Your task to perform on an android device: Open sound settings Image 0: 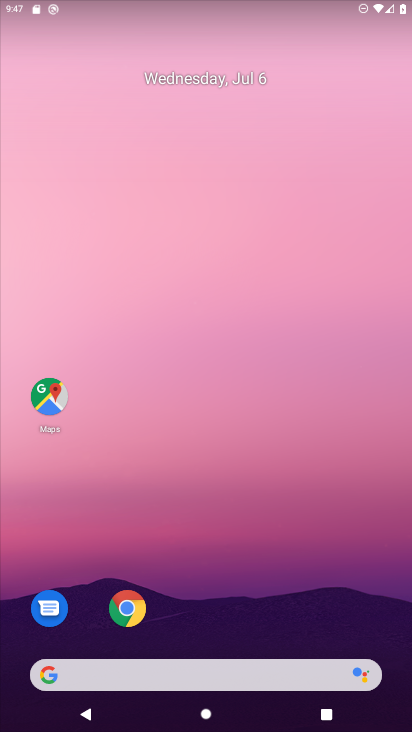
Step 0: drag from (207, 657) to (273, 248)
Your task to perform on an android device: Open sound settings Image 1: 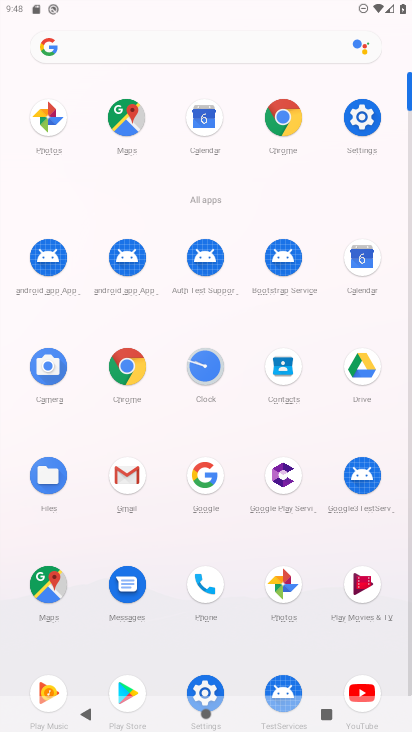
Step 1: click (365, 114)
Your task to perform on an android device: Open sound settings Image 2: 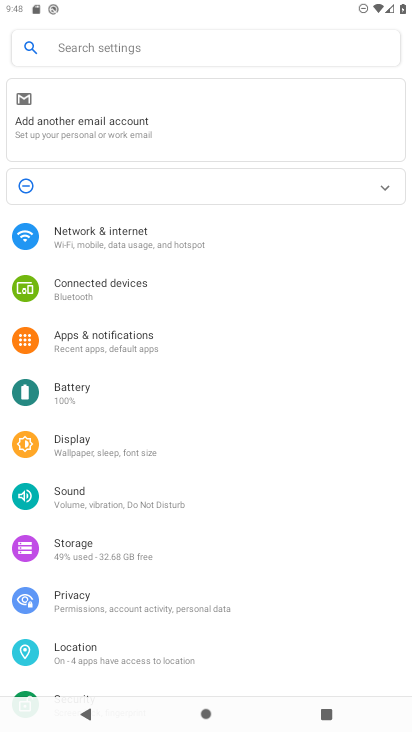
Step 2: click (79, 447)
Your task to perform on an android device: Open sound settings Image 3: 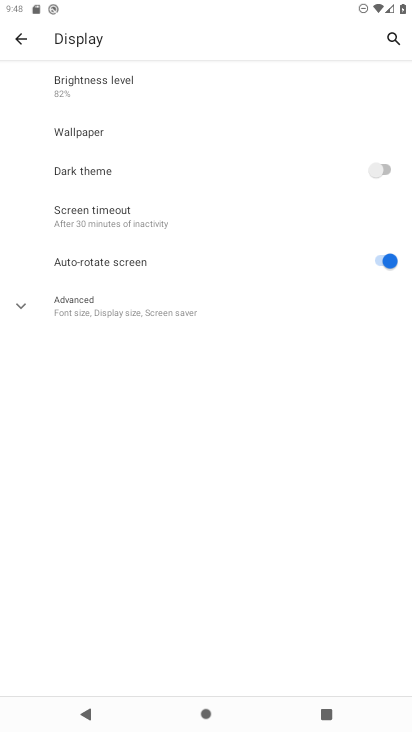
Step 3: click (67, 305)
Your task to perform on an android device: Open sound settings Image 4: 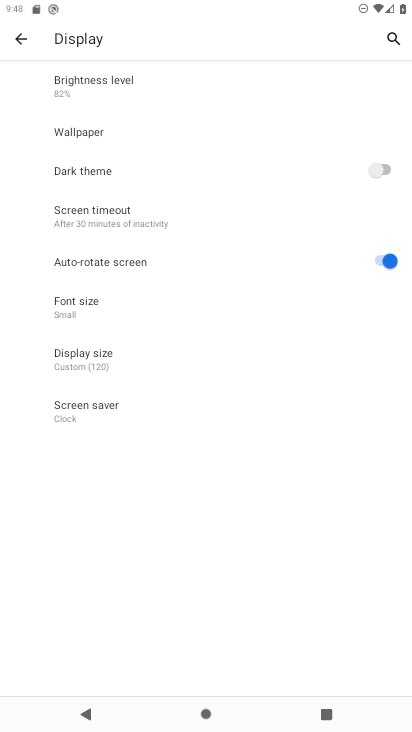
Step 4: task complete